Your task to perform on an android device: Go to internet settings Image 0: 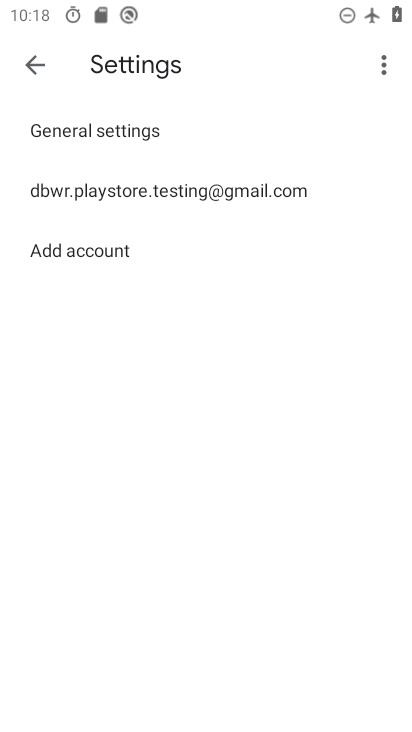
Step 0: press home button
Your task to perform on an android device: Go to internet settings Image 1: 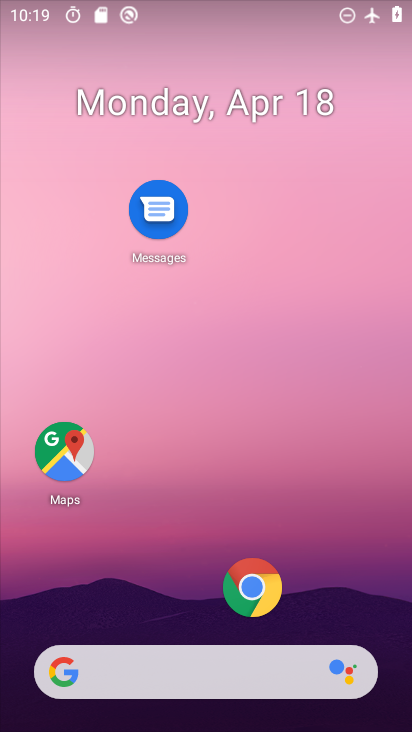
Step 1: drag from (154, 494) to (307, 0)
Your task to perform on an android device: Go to internet settings Image 2: 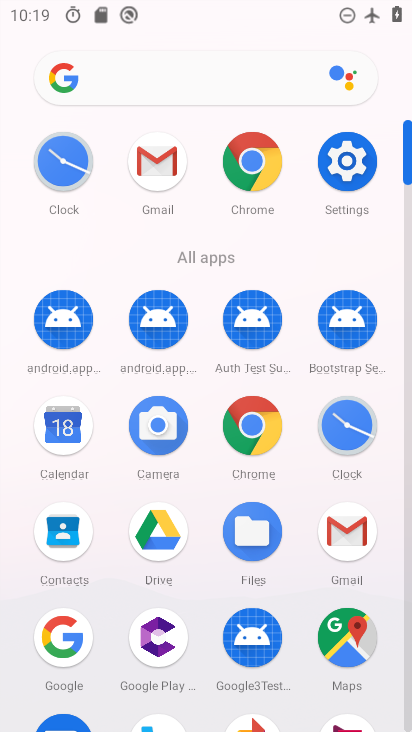
Step 2: click (348, 167)
Your task to perform on an android device: Go to internet settings Image 3: 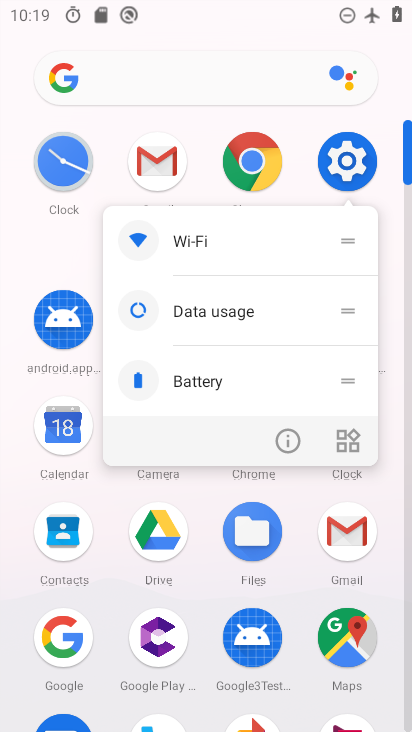
Step 3: click (345, 174)
Your task to perform on an android device: Go to internet settings Image 4: 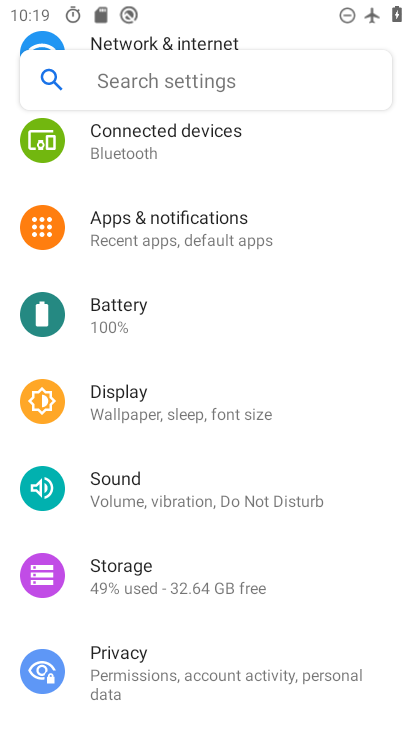
Step 4: drag from (246, 181) to (235, 501)
Your task to perform on an android device: Go to internet settings Image 5: 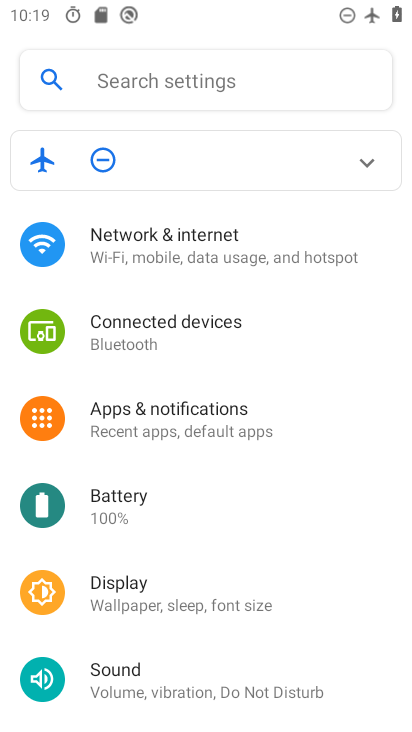
Step 5: click (164, 258)
Your task to perform on an android device: Go to internet settings Image 6: 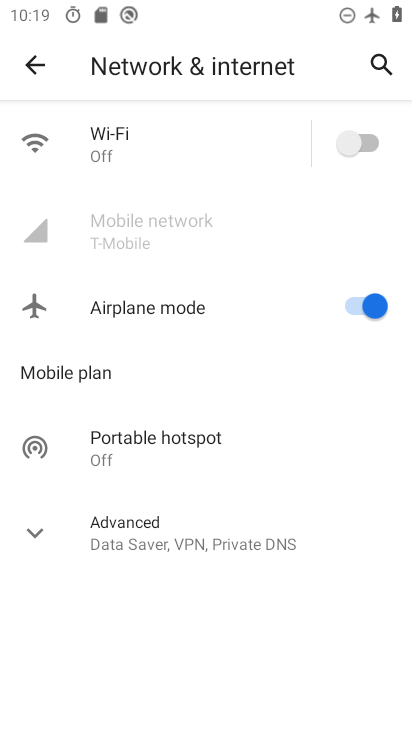
Step 6: task complete